Your task to perform on an android device: Open network settings Image 0: 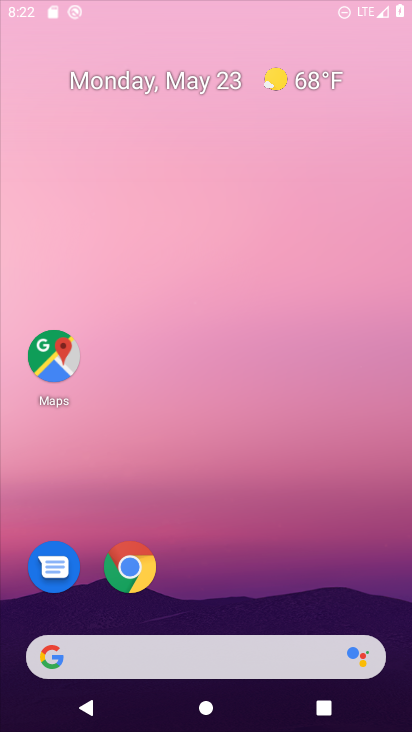
Step 0: drag from (402, 24) to (410, 105)
Your task to perform on an android device: Open network settings Image 1: 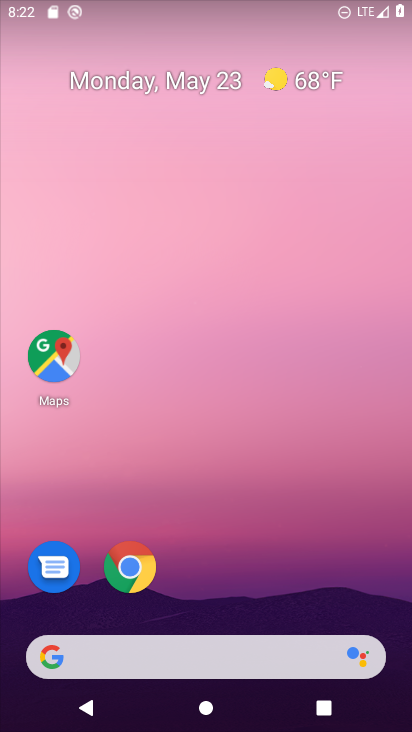
Step 1: drag from (218, 603) to (330, 5)
Your task to perform on an android device: Open network settings Image 2: 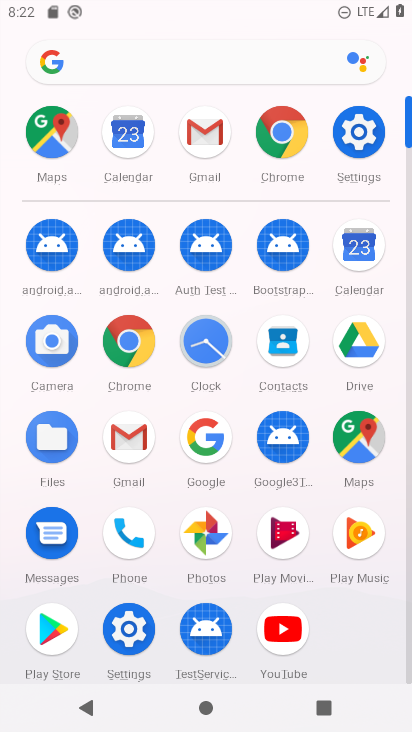
Step 2: click (356, 123)
Your task to perform on an android device: Open network settings Image 3: 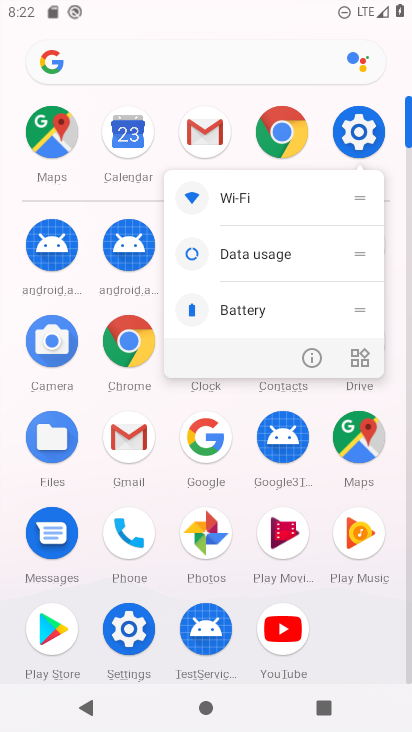
Step 3: click (305, 353)
Your task to perform on an android device: Open network settings Image 4: 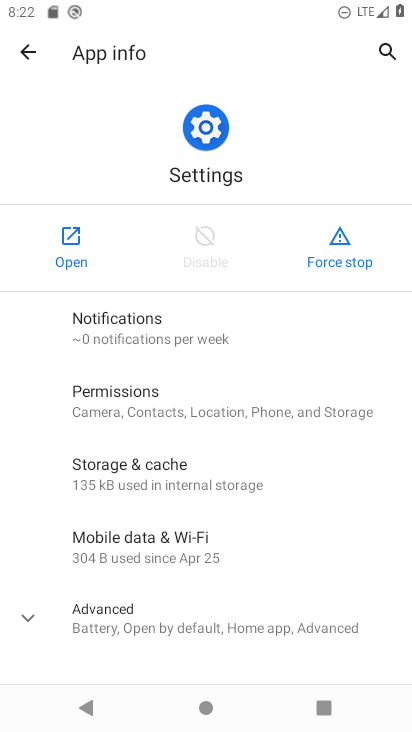
Step 4: click (68, 243)
Your task to perform on an android device: Open network settings Image 5: 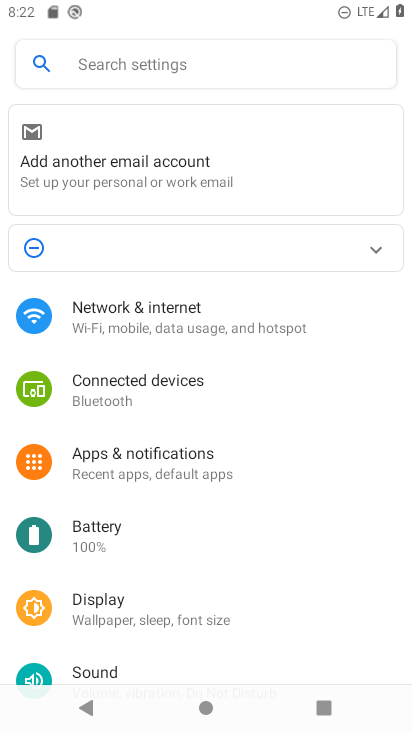
Step 5: click (144, 317)
Your task to perform on an android device: Open network settings Image 6: 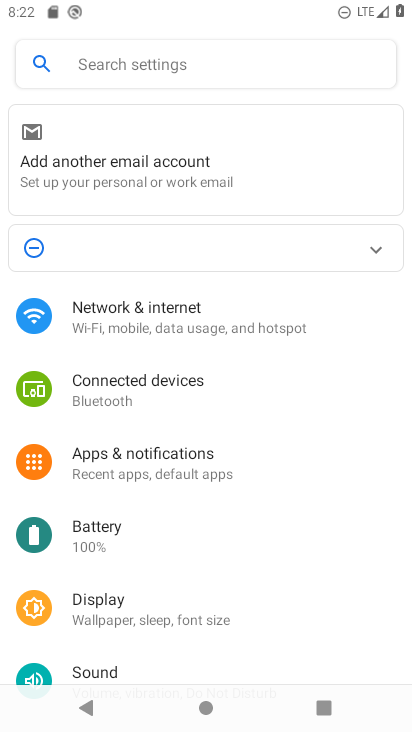
Step 6: click (144, 317)
Your task to perform on an android device: Open network settings Image 7: 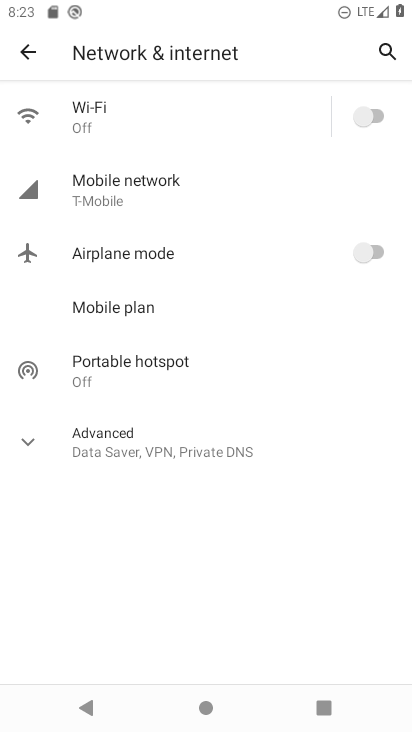
Step 7: task complete